Your task to perform on an android device: turn off data saver in the chrome app Image 0: 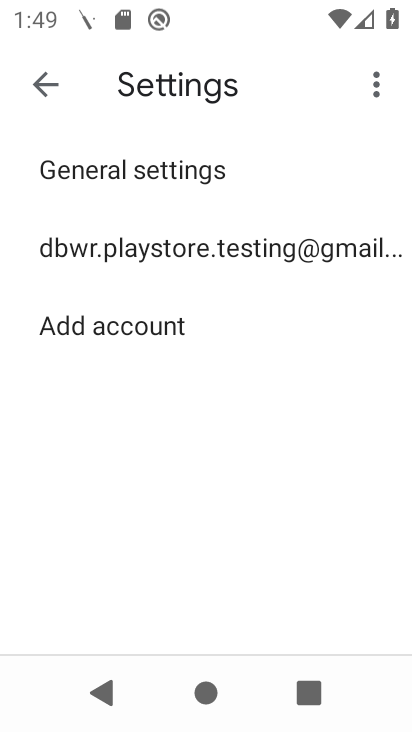
Step 0: press home button
Your task to perform on an android device: turn off data saver in the chrome app Image 1: 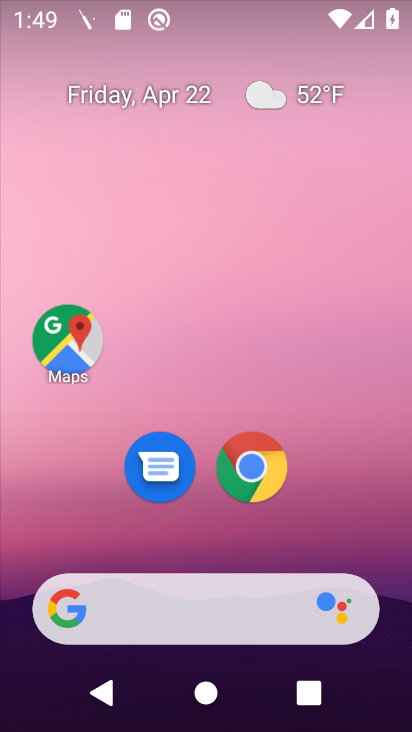
Step 1: click (261, 481)
Your task to perform on an android device: turn off data saver in the chrome app Image 2: 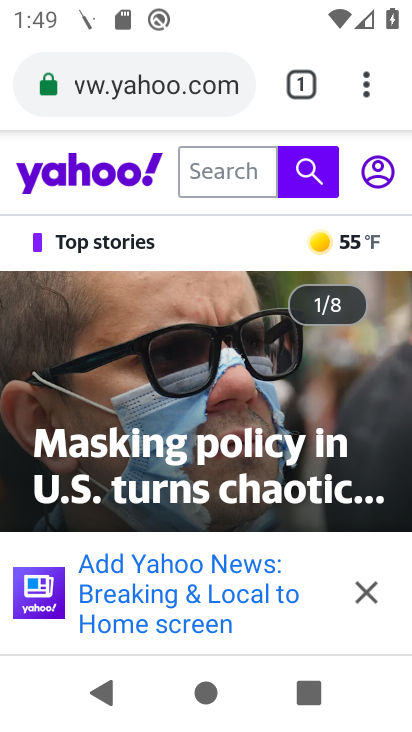
Step 2: task complete